Your task to perform on an android device: search for starred emails in the gmail app Image 0: 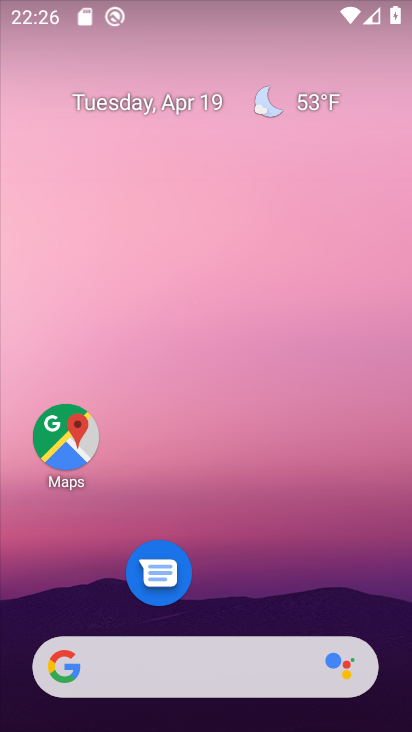
Step 0: press home button
Your task to perform on an android device: search for starred emails in the gmail app Image 1: 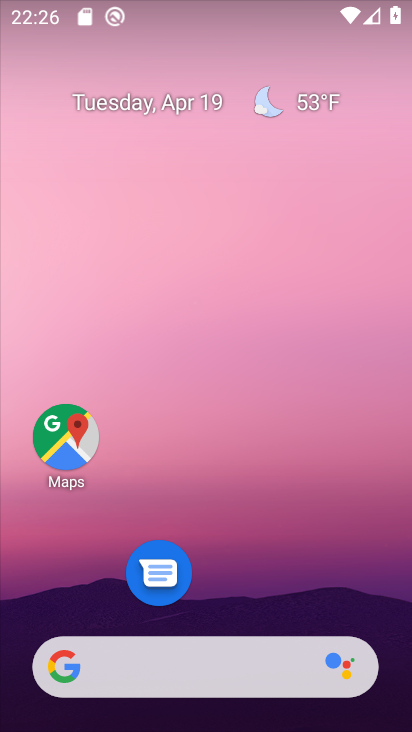
Step 1: drag from (223, 608) to (191, 86)
Your task to perform on an android device: search for starred emails in the gmail app Image 2: 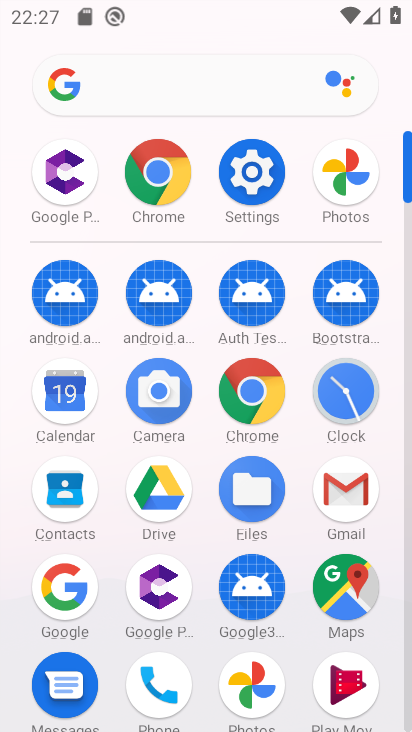
Step 2: click (343, 479)
Your task to perform on an android device: search for starred emails in the gmail app Image 3: 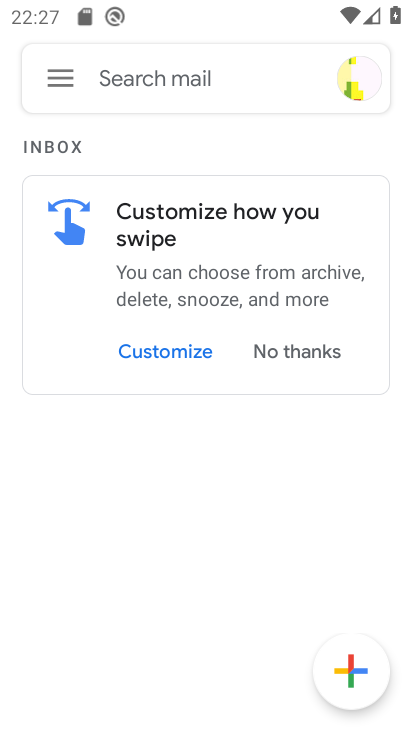
Step 3: click (293, 346)
Your task to perform on an android device: search for starred emails in the gmail app Image 4: 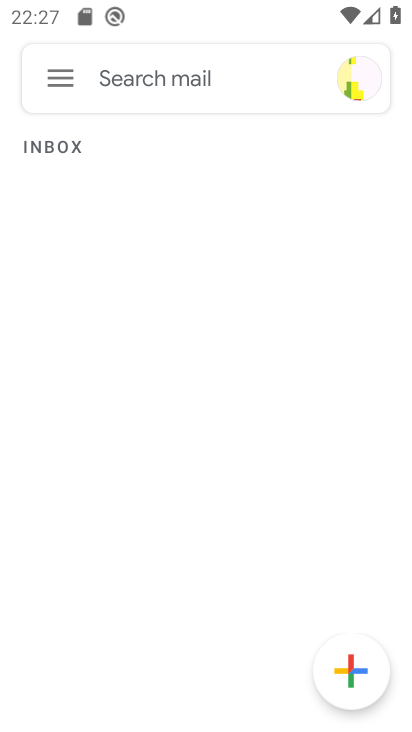
Step 4: click (49, 73)
Your task to perform on an android device: search for starred emails in the gmail app Image 5: 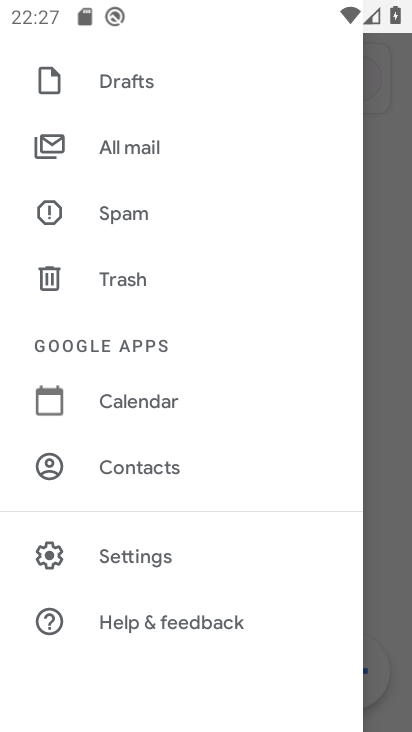
Step 5: drag from (80, 97) to (73, 637)
Your task to perform on an android device: search for starred emails in the gmail app Image 6: 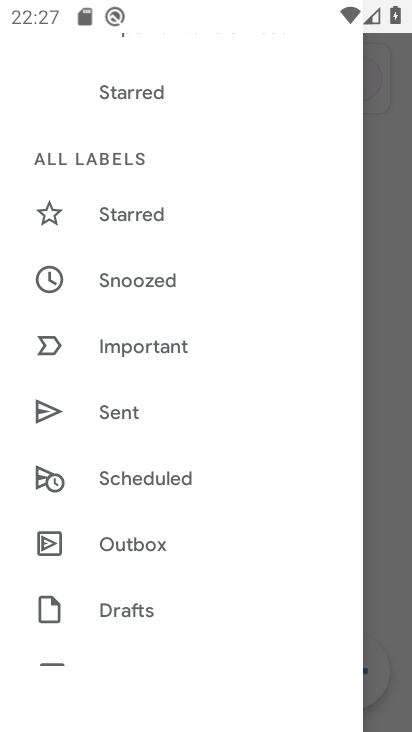
Step 6: click (74, 206)
Your task to perform on an android device: search for starred emails in the gmail app Image 7: 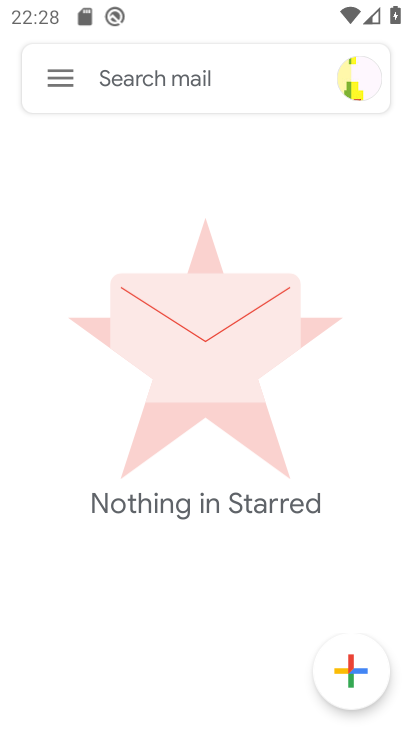
Step 7: task complete